Your task to perform on an android device: Go to Wikipedia Image 0: 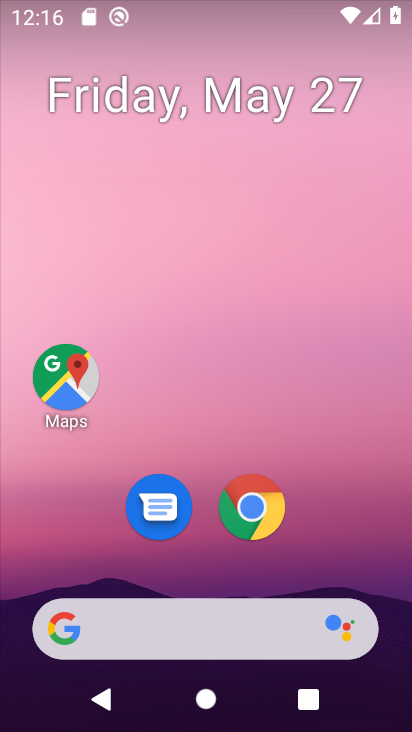
Step 0: click (243, 507)
Your task to perform on an android device: Go to Wikipedia Image 1: 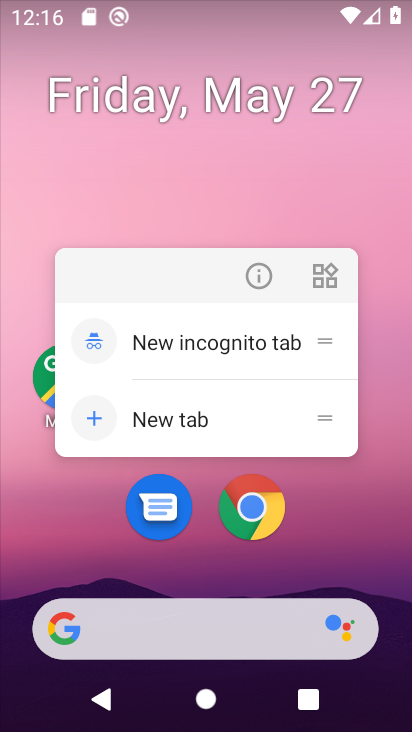
Step 1: click (247, 507)
Your task to perform on an android device: Go to Wikipedia Image 2: 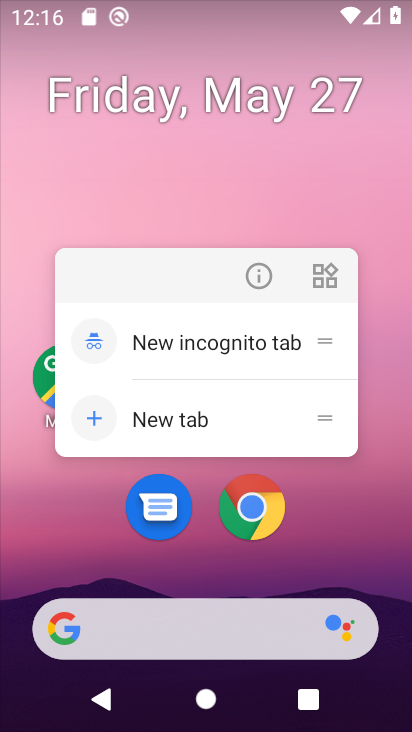
Step 2: click (247, 507)
Your task to perform on an android device: Go to Wikipedia Image 3: 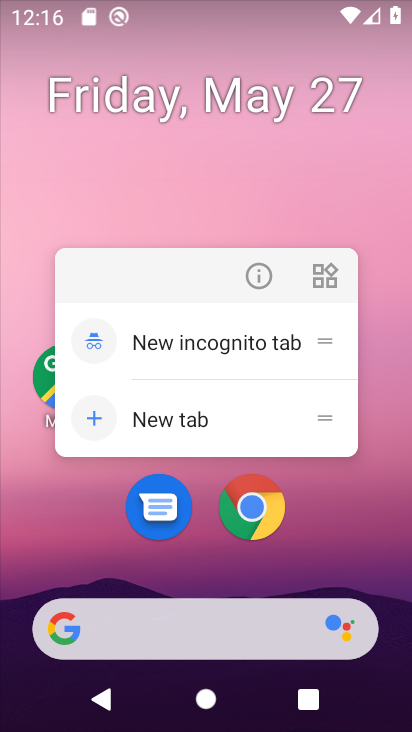
Step 3: click (262, 529)
Your task to perform on an android device: Go to Wikipedia Image 4: 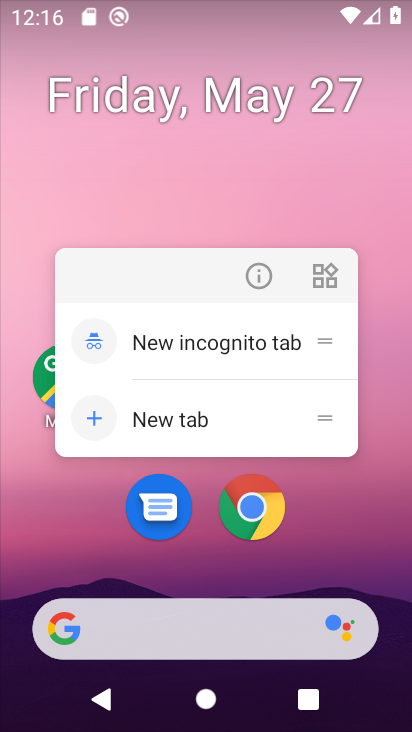
Step 4: click (264, 515)
Your task to perform on an android device: Go to Wikipedia Image 5: 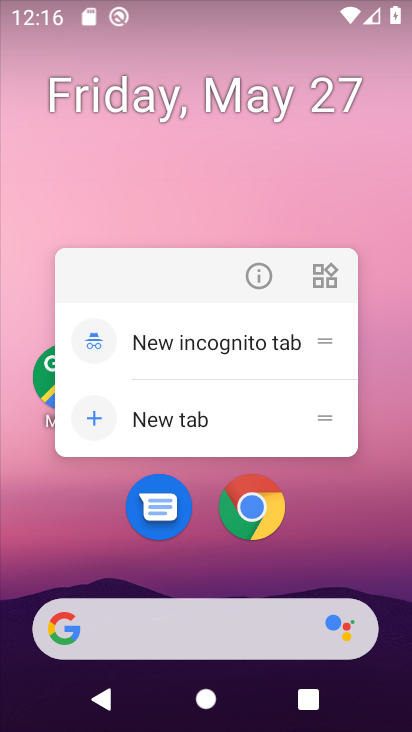
Step 5: click (264, 505)
Your task to perform on an android device: Go to Wikipedia Image 6: 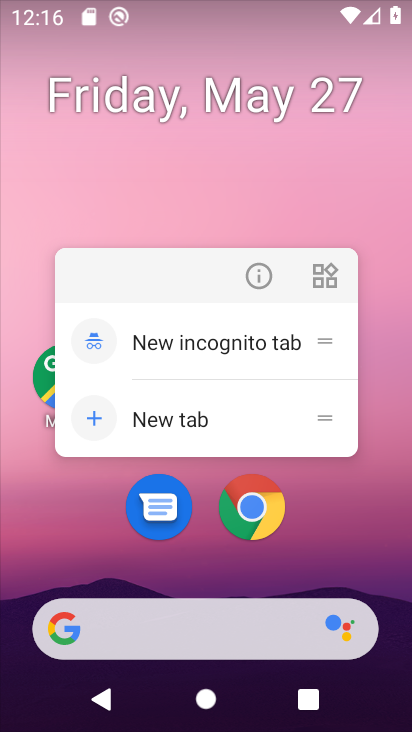
Step 6: click (264, 505)
Your task to perform on an android device: Go to Wikipedia Image 7: 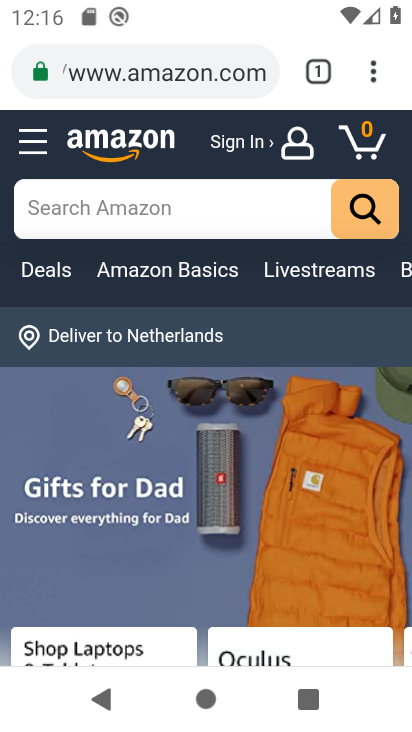
Step 7: drag from (379, 87) to (327, 128)
Your task to perform on an android device: Go to Wikipedia Image 8: 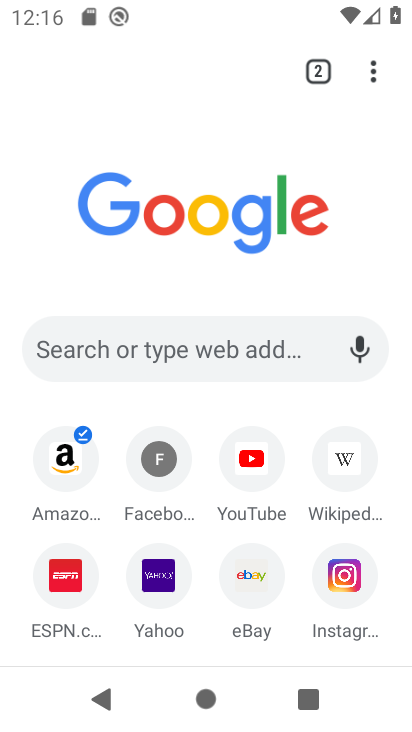
Step 8: click (354, 477)
Your task to perform on an android device: Go to Wikipedia Image 9: 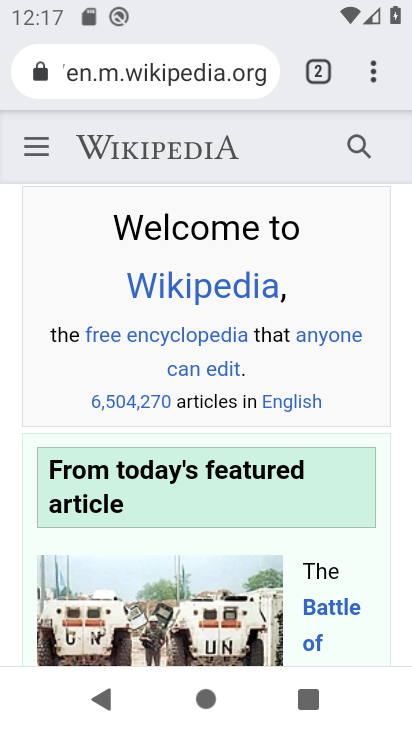
Step 9: task complete